Your task to perform on an android device: star an email in the gmail app Image 0: 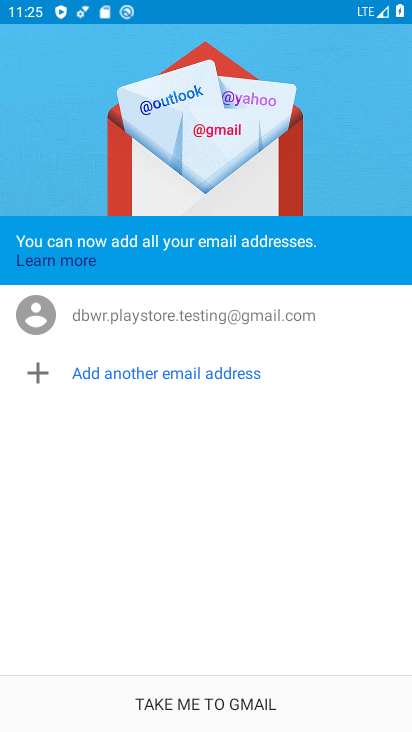
Step 0: press home button
Your task to perform on an android device: star an email in the gmail app Image 1: 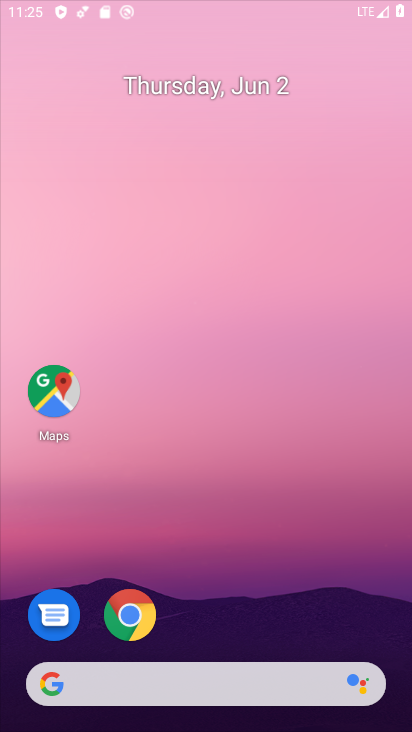
Step 1: drag from (337, 551) to (95, 1)
Your task to perform on an android device: star an email in the gmail app Image 2: 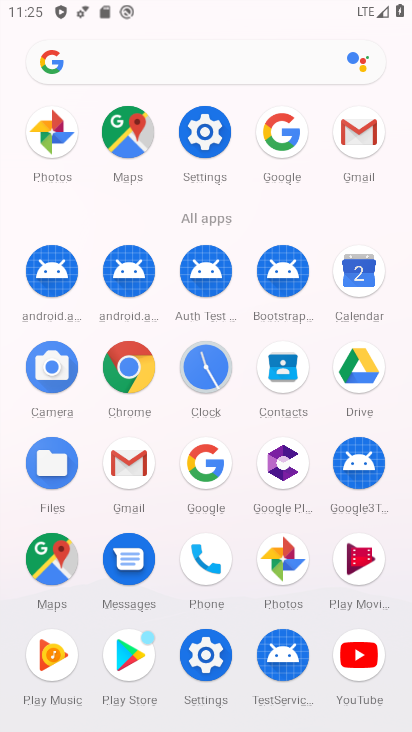
Step 2: click (373, 136)
Your task to perform on an android device: star an email in the gmail app Image 3: 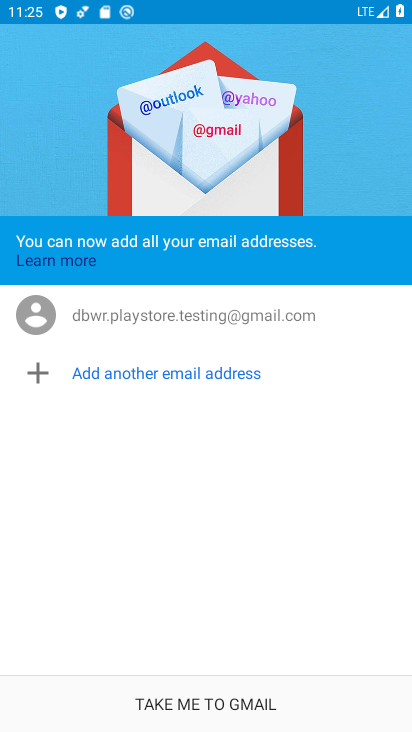
Step 3: click (232, 690)
Your task to perform on an android device: star an email in the gmail app Image 4: 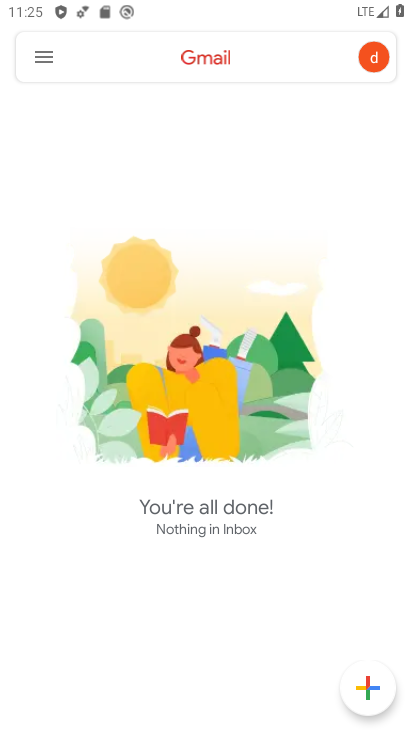
Step 4: click (42, 49)
Your task to perform on an android device: star an email in the gmail app Image 5: 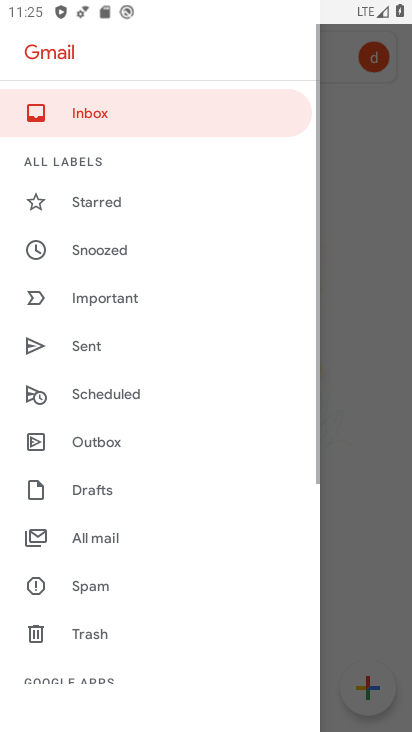
Step 5: drag from (151, 539) to (169, 143)
Your task to perform on an android device: star an email in the gmail app Image 6: 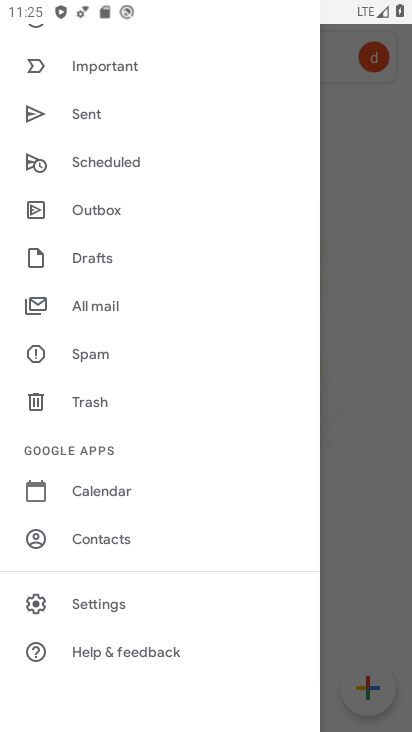
Step 6: click (130, 314)
Your task to perform on an android device: star an email in the gmail app Image 7: 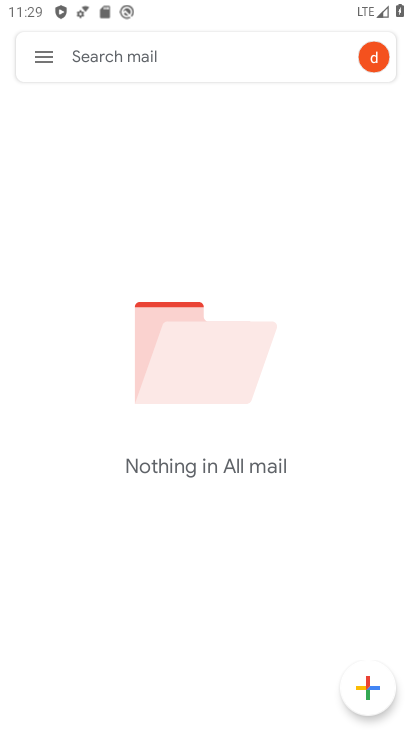
Step 7: task complete